Your task to perform on an android device: empty trash in google photos Image 0: 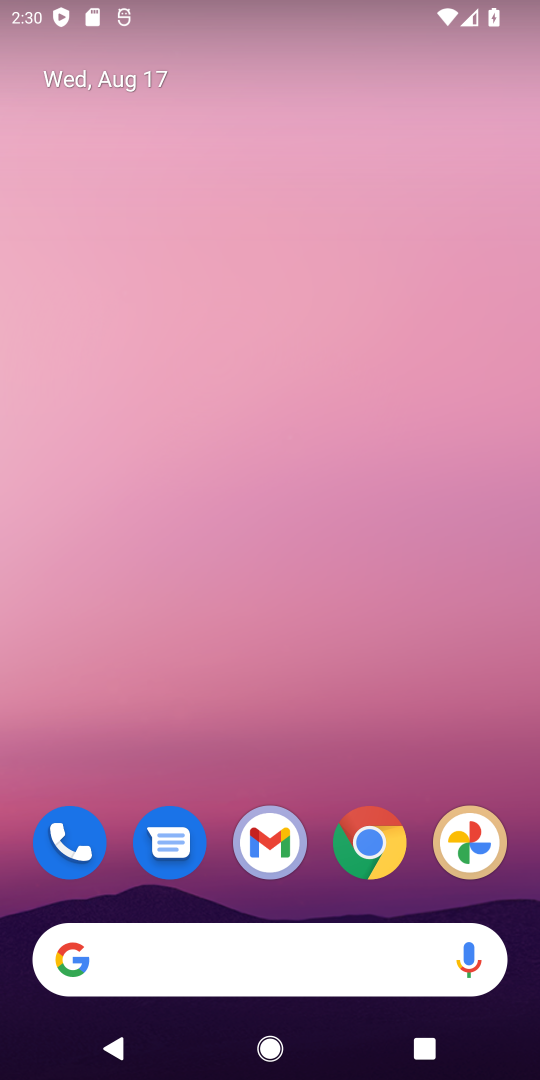
Step 0: drag from (523, 879) to (204, 0)
Your task to perform on an android device: empty trash in google photos Image 1: 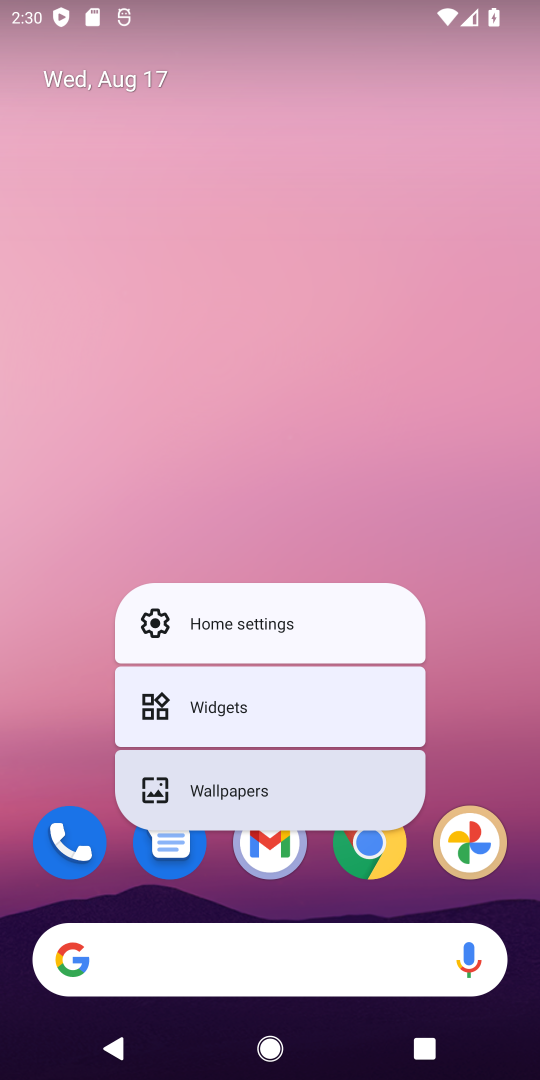
Step 1: click (480, 686)
Your task to perform on an android device: empty trash in google photos Image 2: 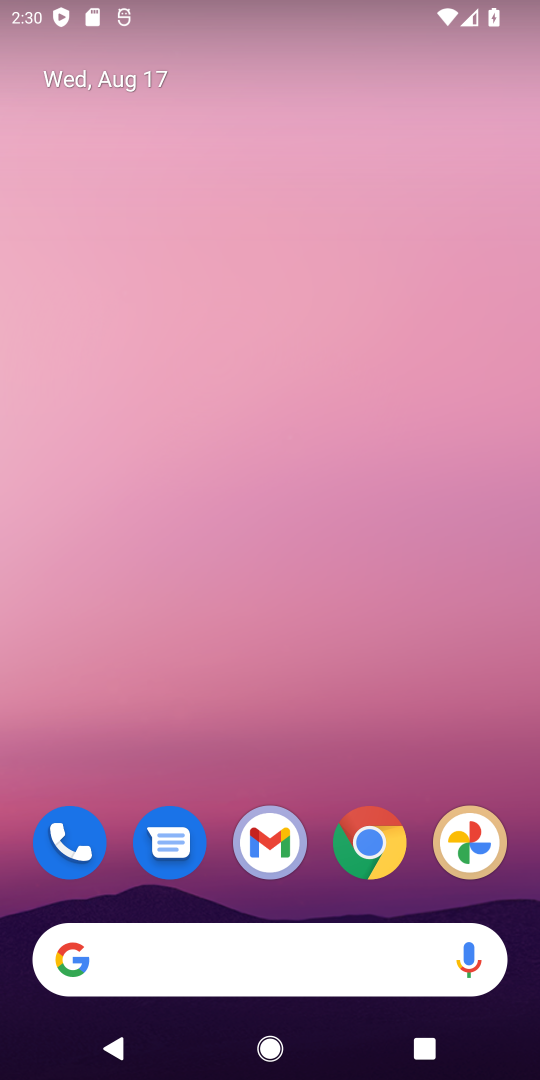
Step 2: click (465, 834)
Your task to perform on an android device: empty trash in google photos Image 3: 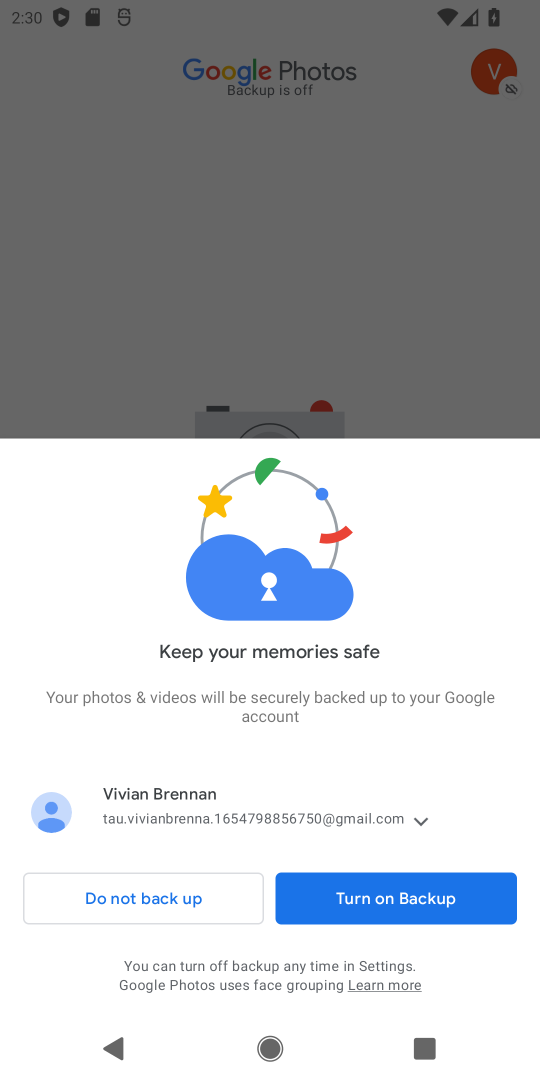
Step 3: click (371, 892)
Your task to perform on an android device: empty trash in google photos Image 4: 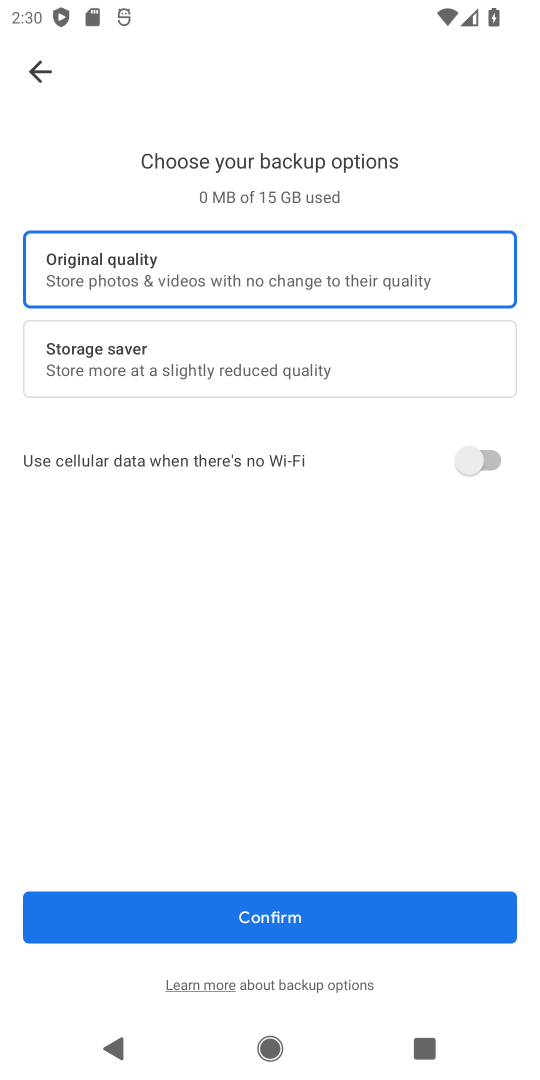
Step 4: click (258, 911)
Your task to perform on an android device: empty trash in google photos Image 5: 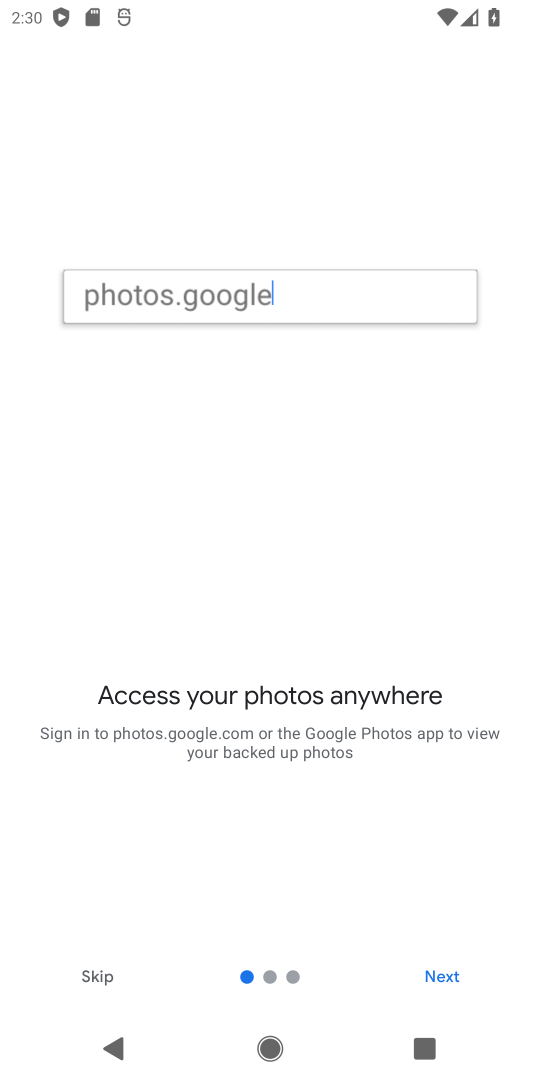
Step 5: click (443, 975)
Your task to perform on an android device: empty trash in google photos Image 6: 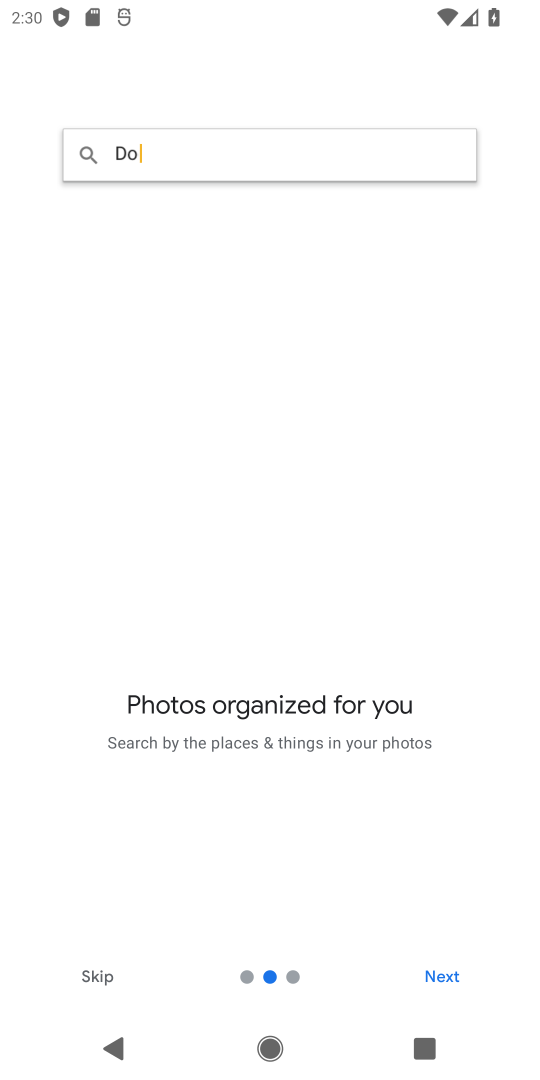
Step 6: click (443, 975)
Your task to perform on an android device: empty trash in google photos Image 7: 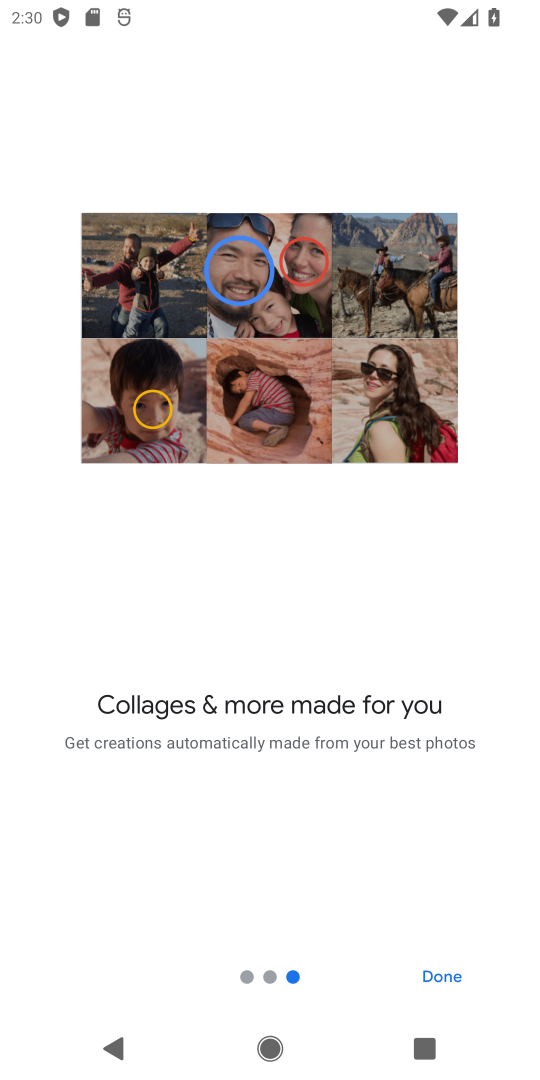
Step 7: click (443, 975)
Your task to perform on an android device: empty trash in google photos Image 8: 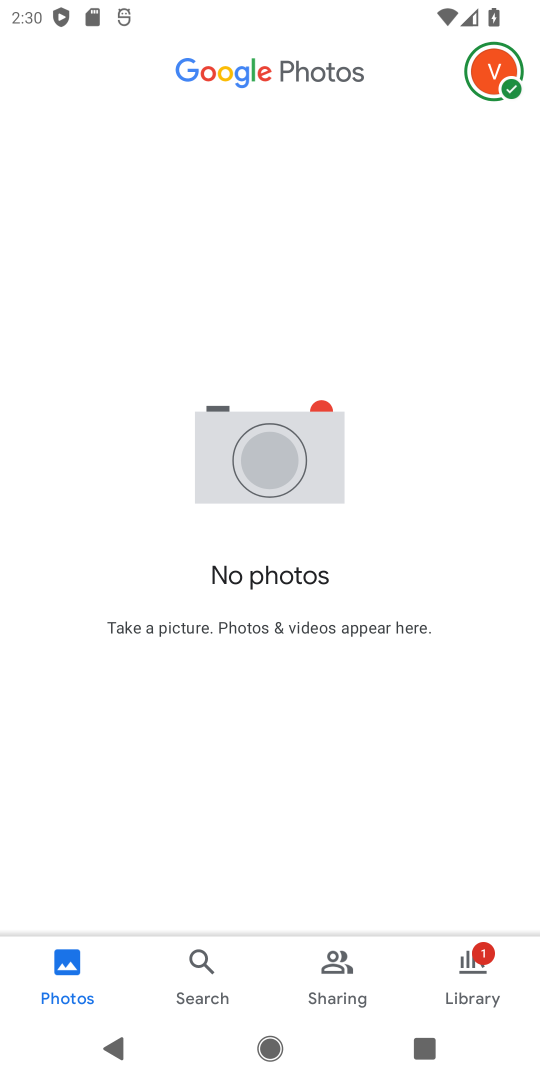
Step 8: click (491, 67)
Your task to perform on an android device: empty trash in google photos Image 9: 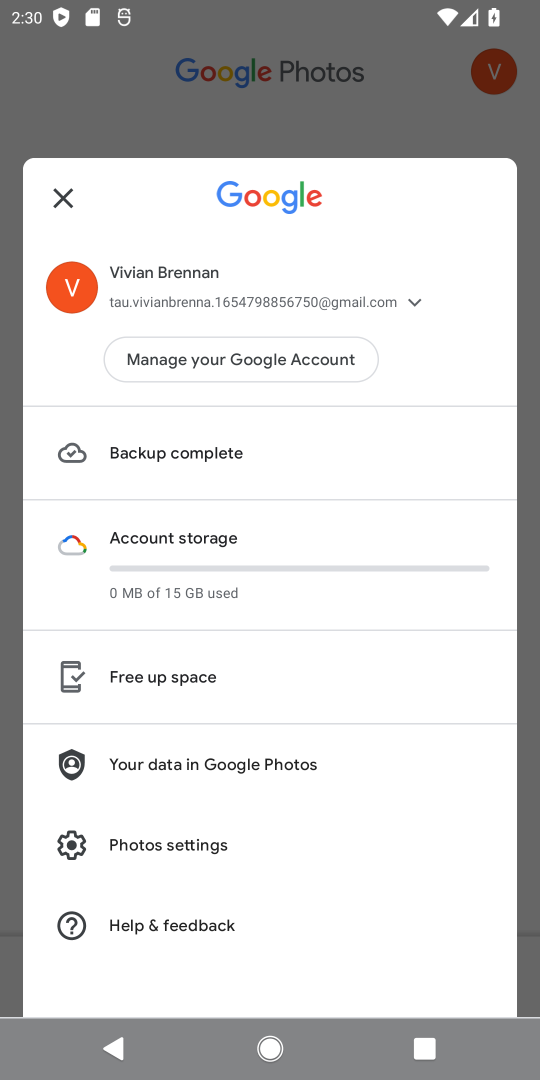
Step 9: click (182, 846)
Your task to perform on an android device: empty trash in google photos Image 10: 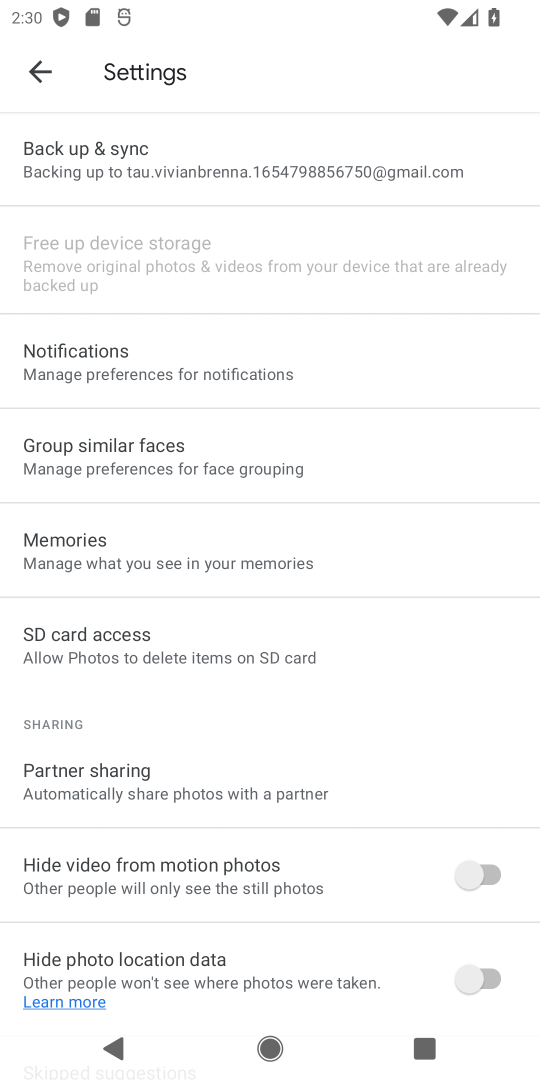
Step 10: task complete